Your task to perform on an android device: change notifications settings Image 0: 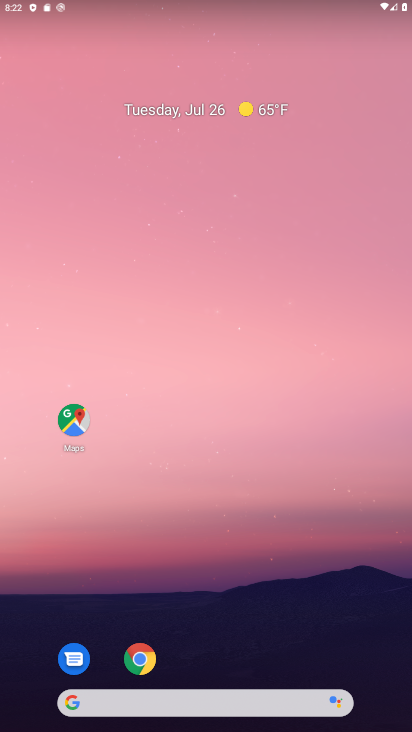
Step 0: drag from (189, 657) to (191, 2)
Your task to perform on an android device: change notifications settings Image 1: 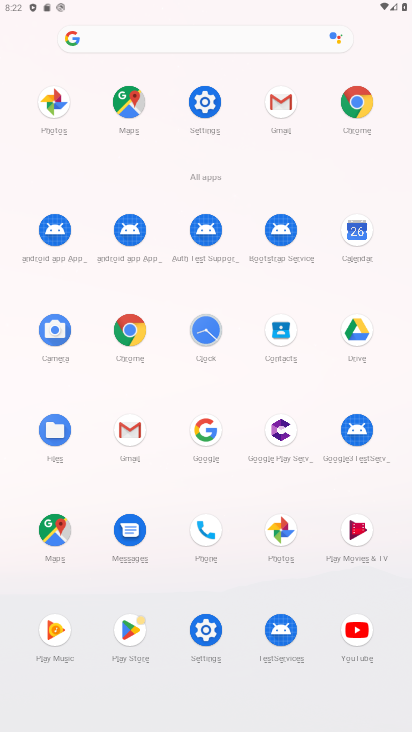
Step 1: click (208, 112)
Your task to perform on an android device: change notifications settings Image 2: 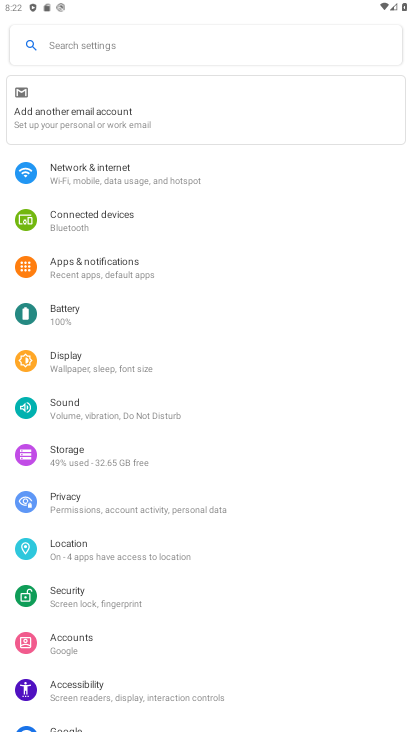
Step 2: click (107, 266)
Your task to perform on an android device: change notifications settings Image 3: 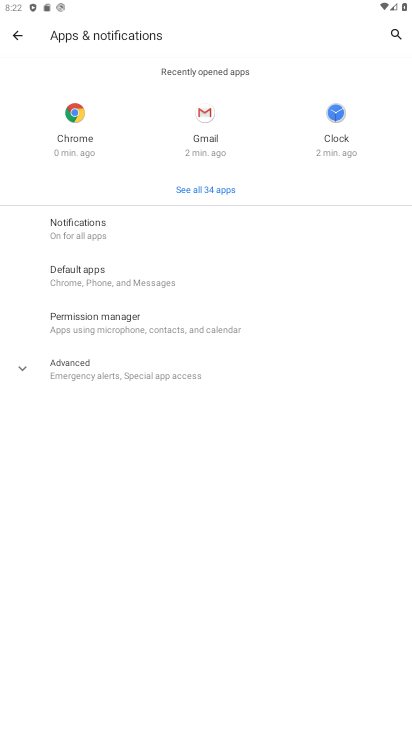
Step 3: click (79, 371)
Your task to perform on an android device: change notifications settings Image 4: 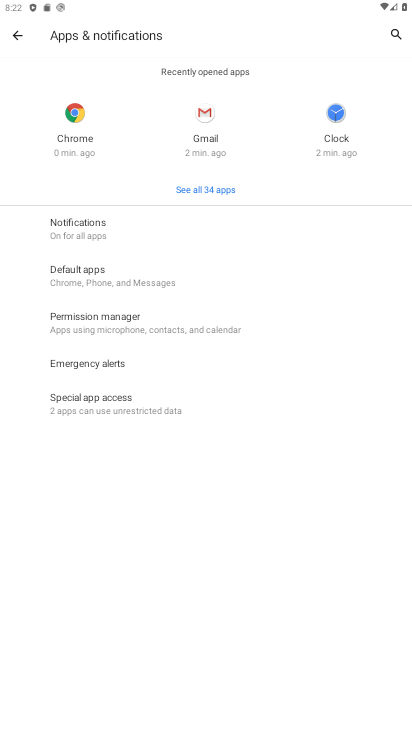
Step 4: click (92, 229)
Your task to perform on an android device: change notifications settings Image 5: 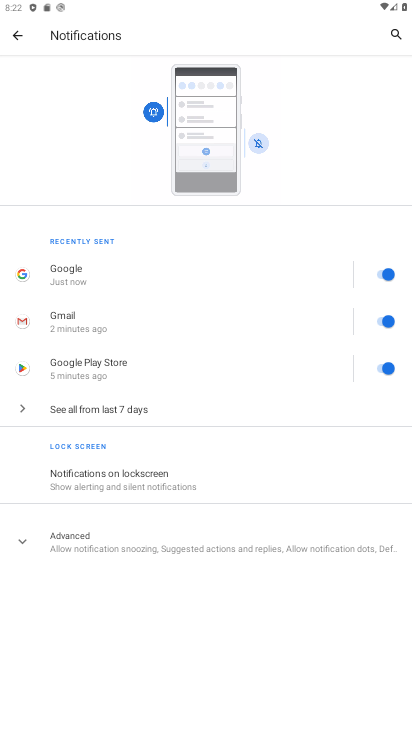
Step 5: click (112, 470)
Your task to perform on an android device: change notifications settings Image 6: 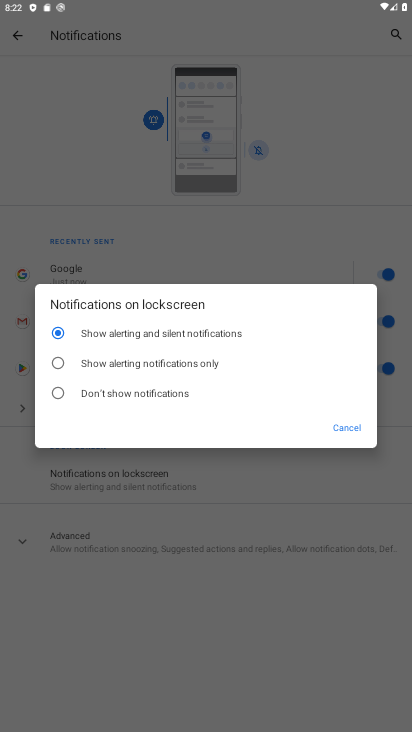
Step 6: click (56, 390)
Your task to perform on an android device: change notifications settings Image 7: 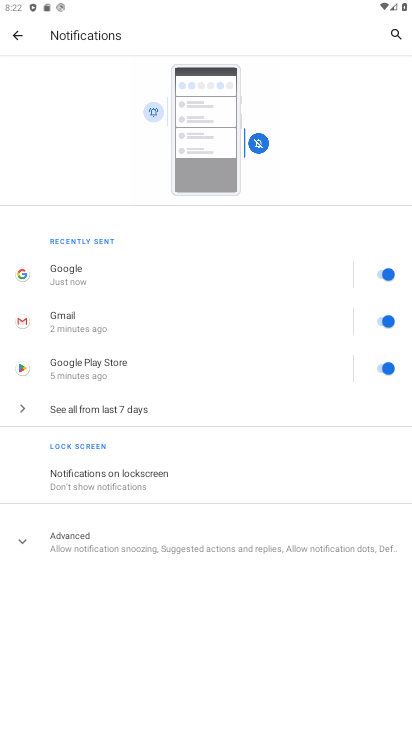
Step 7: task complete